Your task to perform on an android device: find photos in the google photos app Image 0: 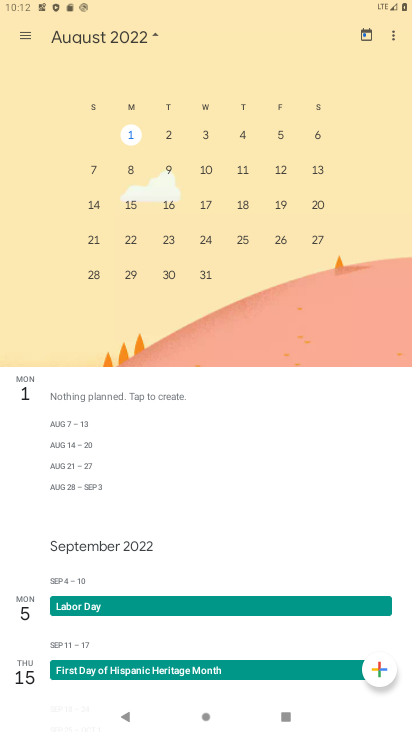
Step 0: press home button
Your task to perform on an android device: find photos in the google photos app Image 1: 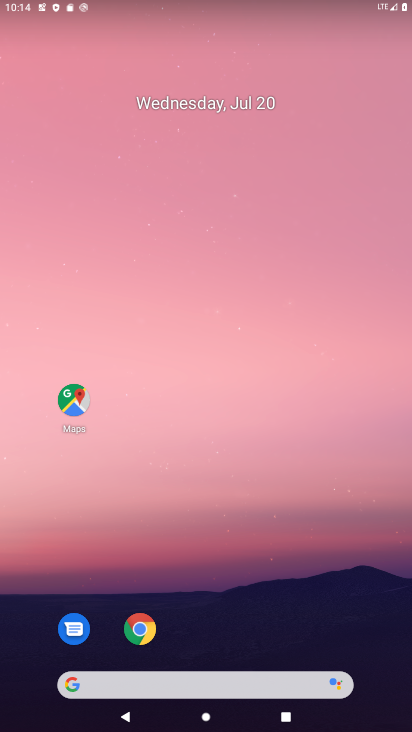
Step 1: drag from (338, 648) to (294, 205)
Your task to perform on an android device: find photos in the google photos app Image 2: 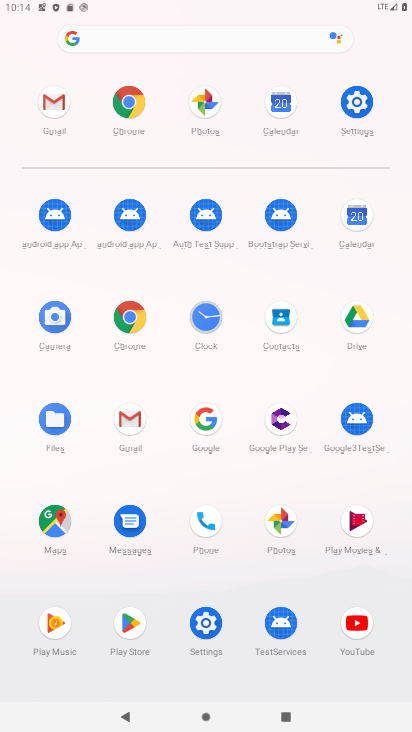
Step 2: click (278, 505)
Your task to perform on an android device: find photos in the google photos app Image 3: 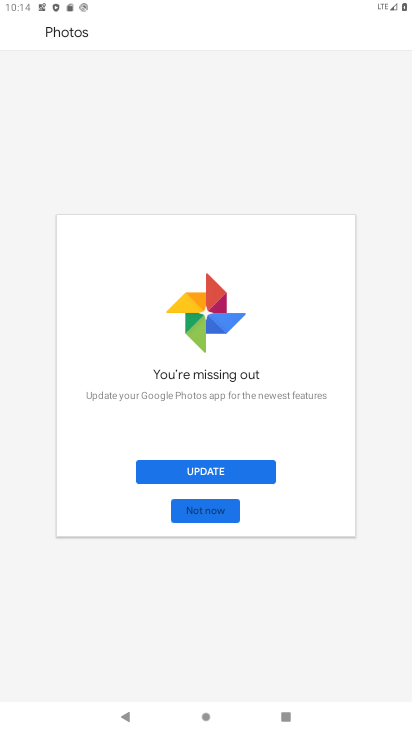
Step 3: click (242, 472)
Your task to perform on an android device: find photos in the google photos app Image 4: 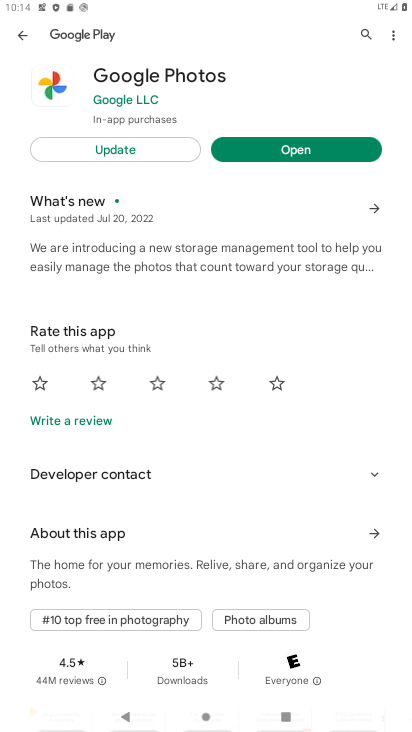
Step 4: click (99, 147)
Your task to perform on an android device: find photos in the google photos app Image 5: 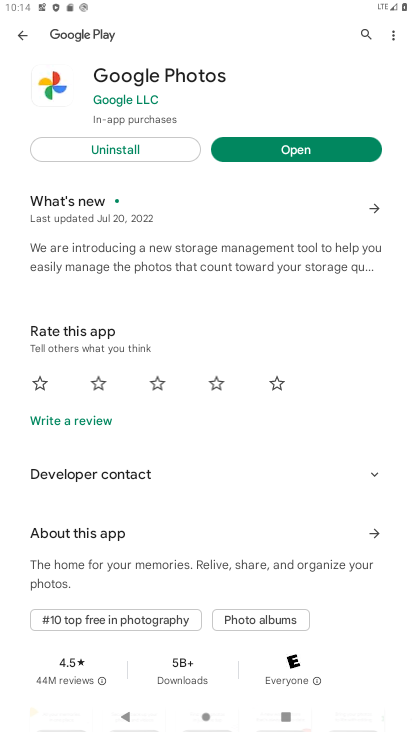
Step 5: click (336, 159)
Your task to perform on an android device: find photos in the google photos app Image 6: 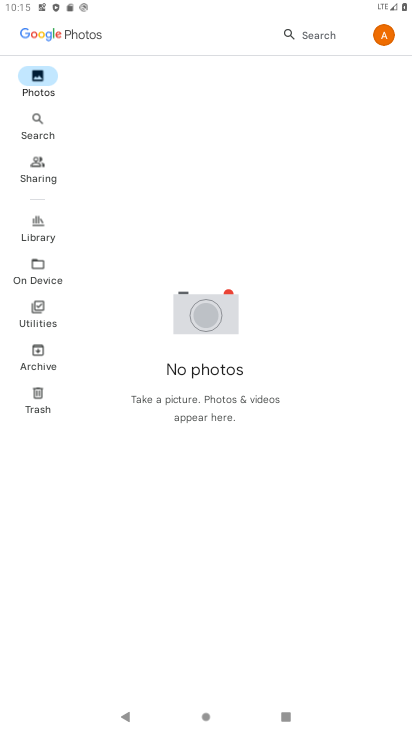
Step 6: task complete